Your task to perform on an android device: Show me the alarms in the clock app Image 0: 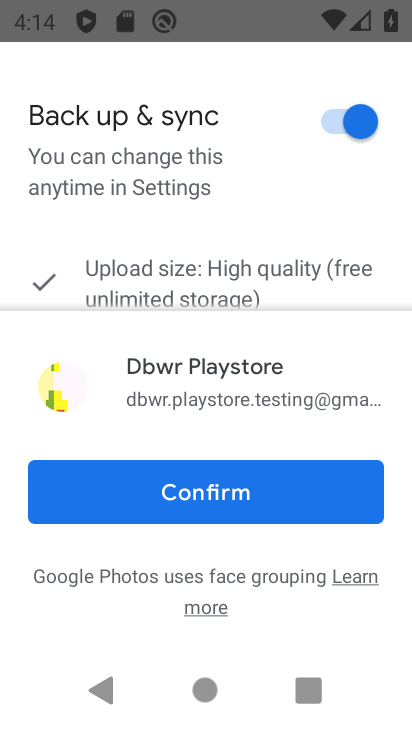
Step 0: press home button
Your task to perform on an android device: Show me the alarms in the clock app Image 1: 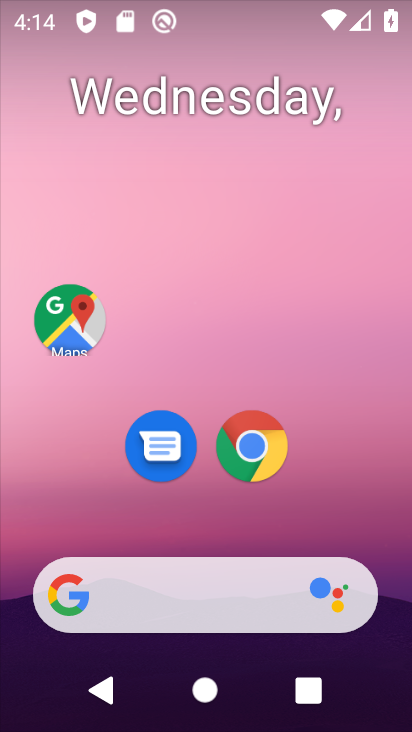
Step 1: drag from (217, 721) to (219, 254)
Your task to perform on an android device: Show me the alarms in the clock app Image 2: 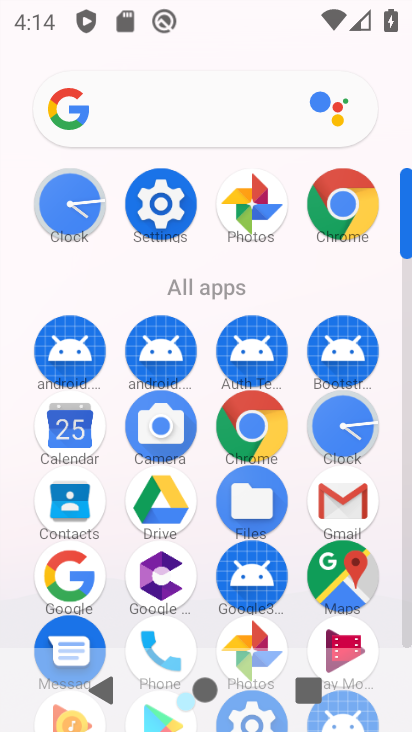
Step 2: click (343, 419)
Your task to perform on an android device: Show me the alarms in the clock app Image 3: 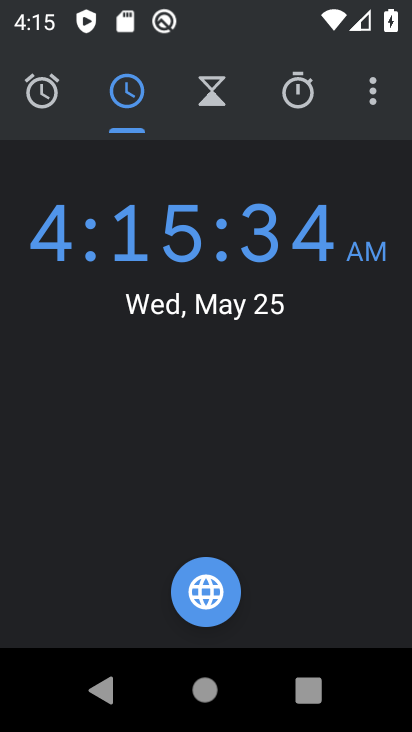
Step 3: click (42, 99)
Your task to perform on an android device: Show me the alarms in the clock app Image 4: 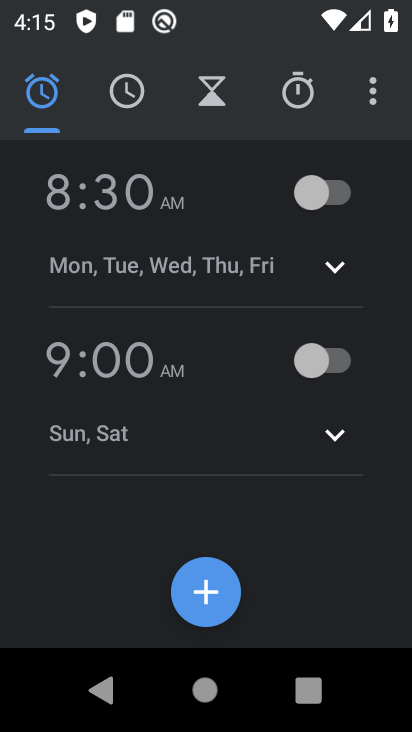
Step 4: task complete